Your task to perform on an android device: Open the phone app and click the voicemail tab. Image 0: 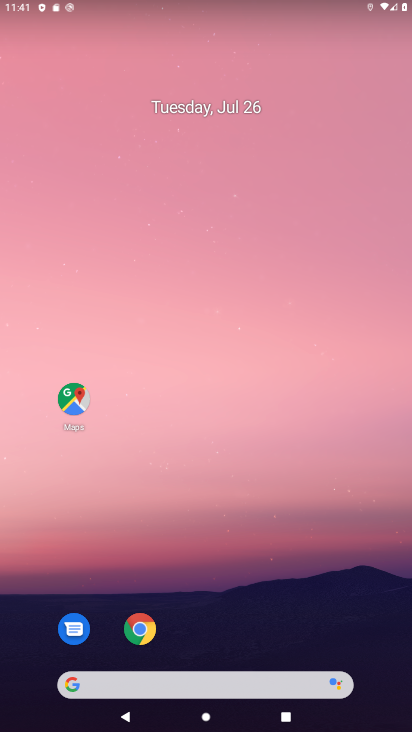
Step 0: drag from (249, 721) to (249, 205)
Your task to perform on an android device: Open the phone app and click the voicemail tab. Image 1: 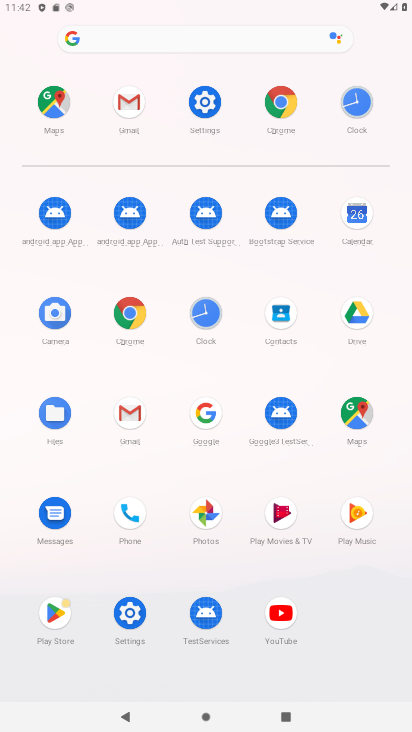
Step 1: click (126, 520)
Your task to perform on an android device: Open the phone app and click the voicemail tab. Image 2: 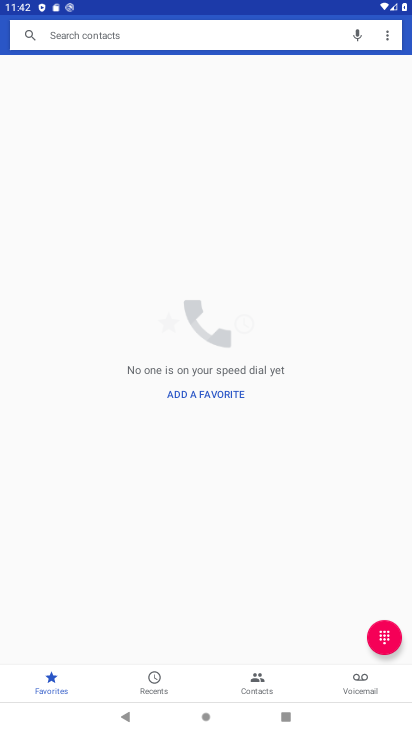
Step 2: click (357, 676)
Your task to perform on an android device: Open the phone app and click the voicemail tab. Image 3: 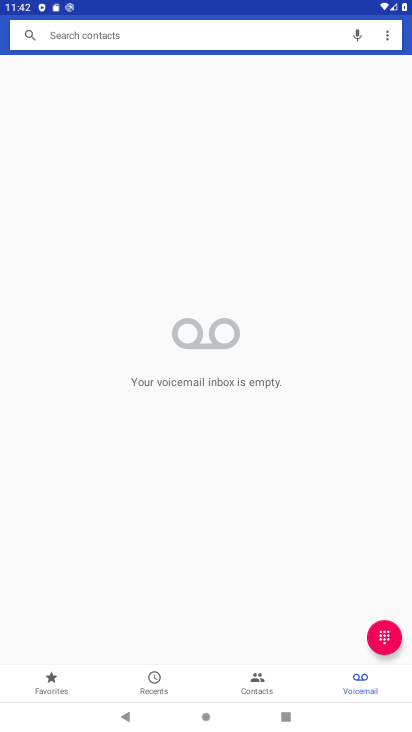
Step 3: task complete